Your task to perform on an android device: Go to Maps Image 0: 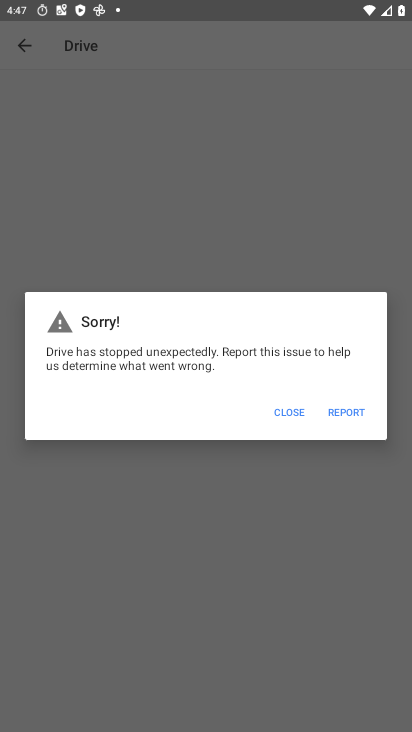
Step 0: press home button
Your task to perform on an android device: Go to Maps Image 1: 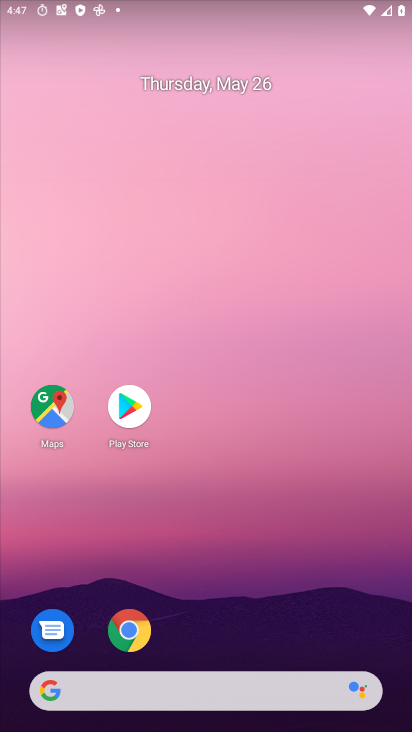
Step 1: click (56, 414)
Your task to perform on an android device: Go to Maps Image 2: 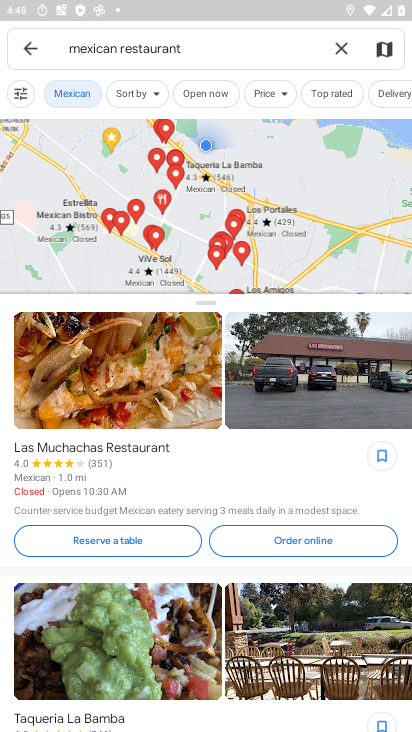
Step 2: task complete